Your task to perform on an android device: Open the stopwatch Image 0: 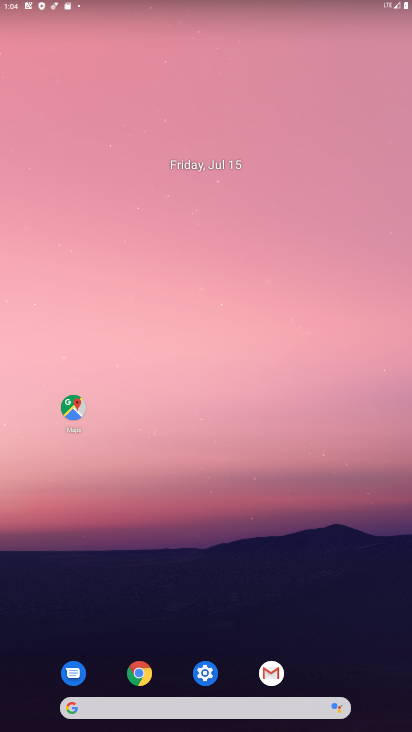
Step 0: press home button
Your task to perform on an android device: Open the stopwatch Image 1: 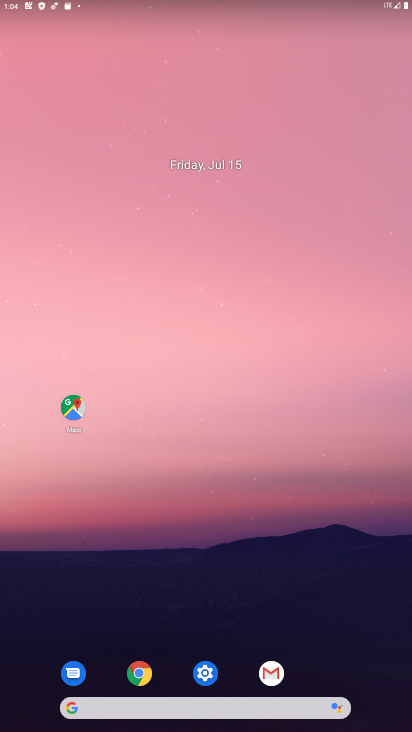
Step 1: click (211, 685)
Your task to perform on an android device: Open the stopwatch Image 2: 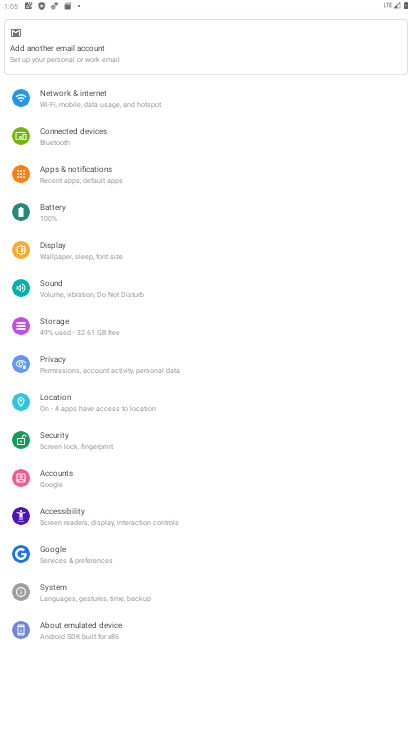
Step 2: press home button
Your task to perform on an android device: Open the stopwatch Image 3: 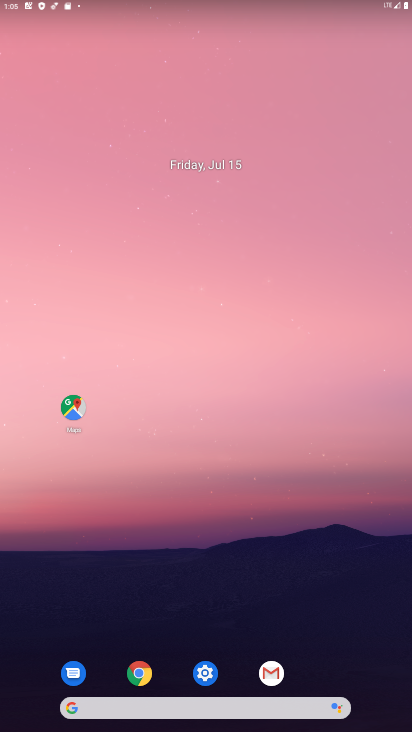
Step 3: drag from (246, 718) to (254, 246)
Your task to perform on an android device: Open the stopwatch Image 4: 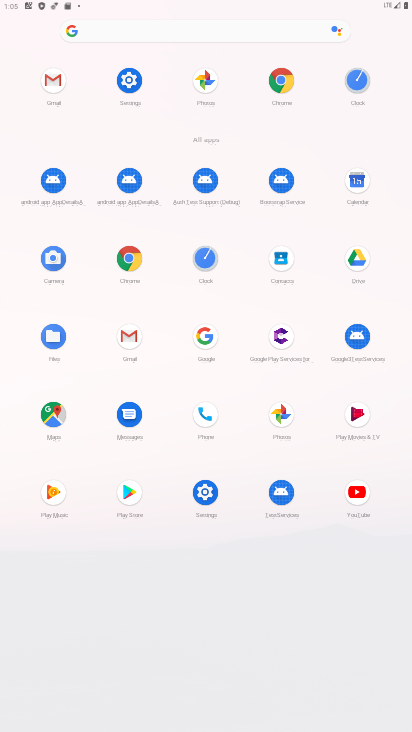
Step 4: click (214, 263)
Your task to perform on an android device: Open the stopwatch Image 5: 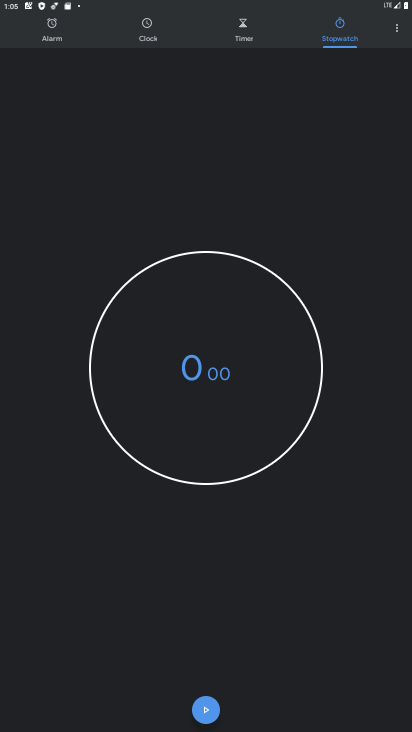
Step 5: click (251, 38)
Your task to perform on an android device: Open the stopwatch Image 6: 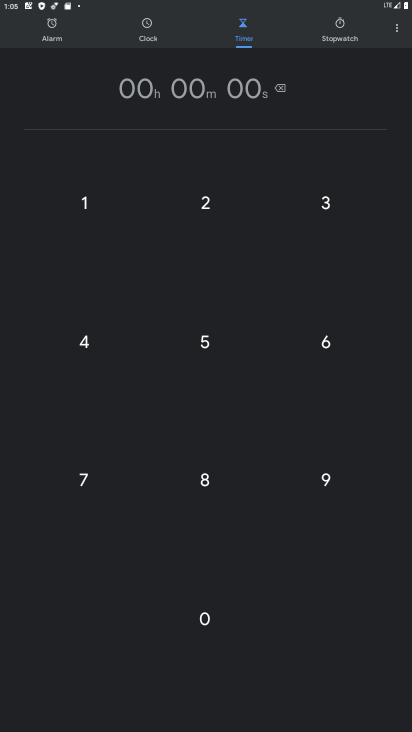
Step 6: click (346, 31)
Your task to perform on an android device: Open the stopwatch Image 7: 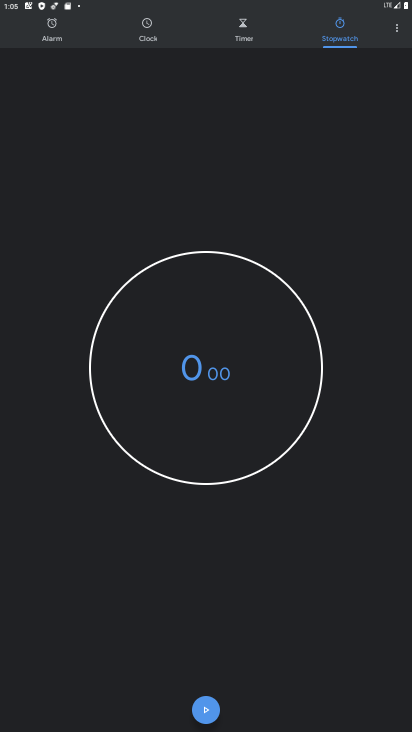
Step 7: task complete